Your task to perform on an android device: Go to privacy settings Image 0: 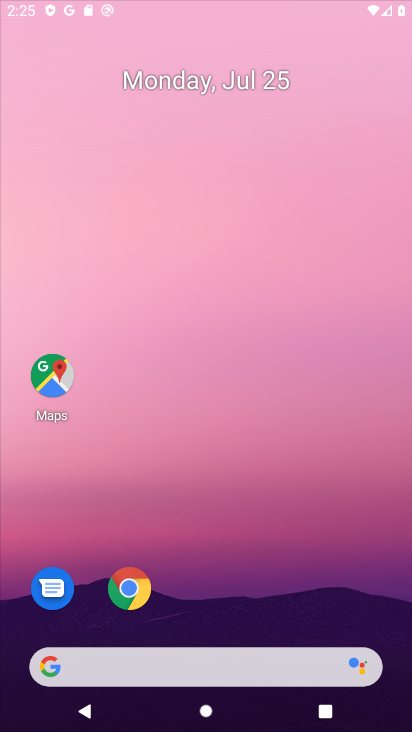
Step 0: press home button
Your task to perform on an android device: Go to privacy settings Image 1: 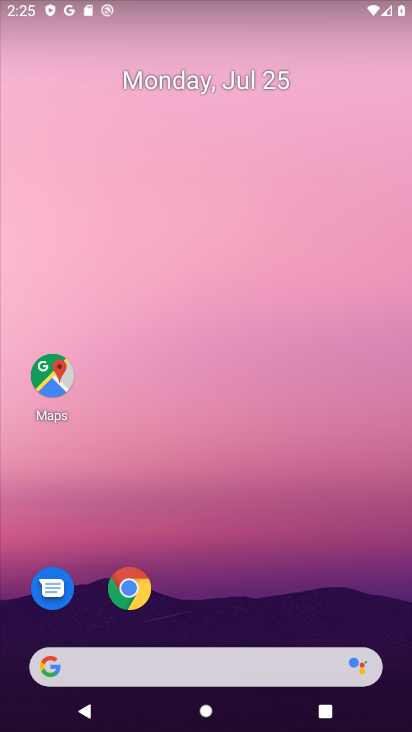
Step 1: drag from (217, 628) to (215, 0)
Your task to perform on an android device: Go to privacy settings Image 2: 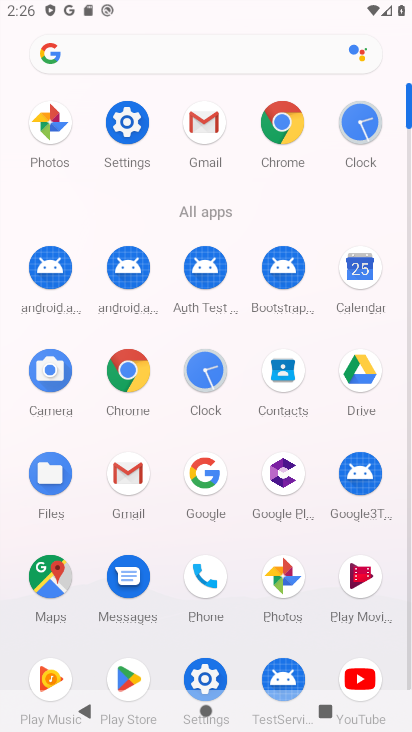
Step 2: click (121, 114)
Your task to perform on an android device: Go to privacy settings Image 3: 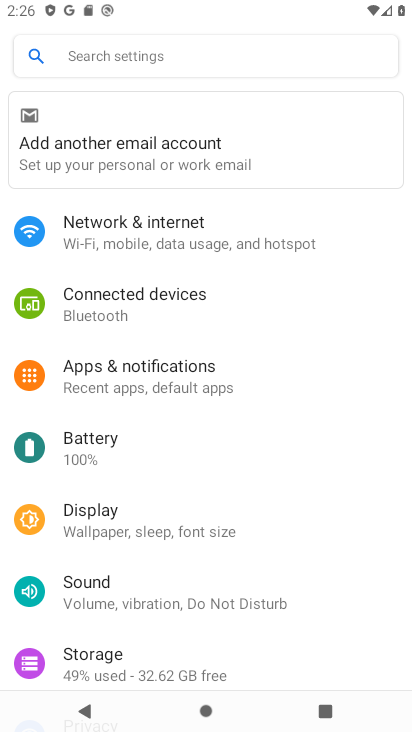
Step 3: drag from (177, 619) to (192, 100)
Your task to perform on an android device: Go to privacy settings Image 4: 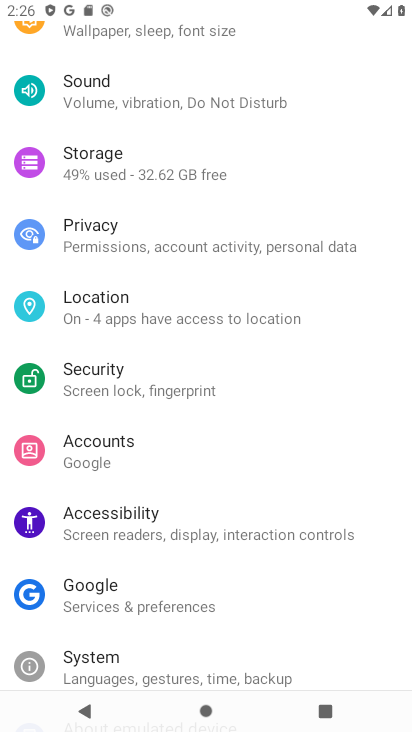
Step 4: click (129, 223)
Your task to perform on an android device: Go to privacy settings Image 5: 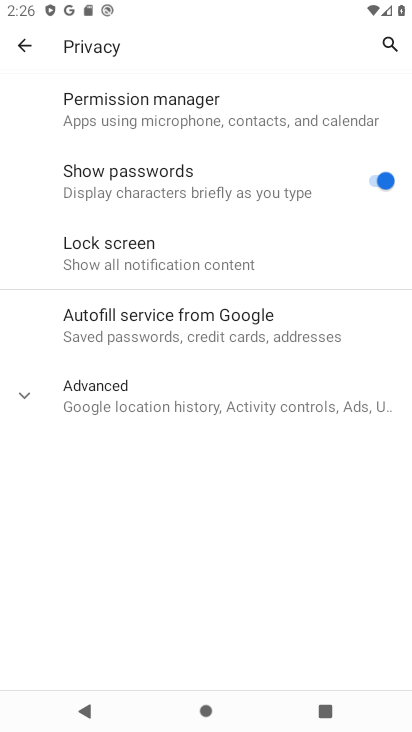
Step 5: click (23, 391)
Your task to perform on an android device: Go to privacy settings Image 6: 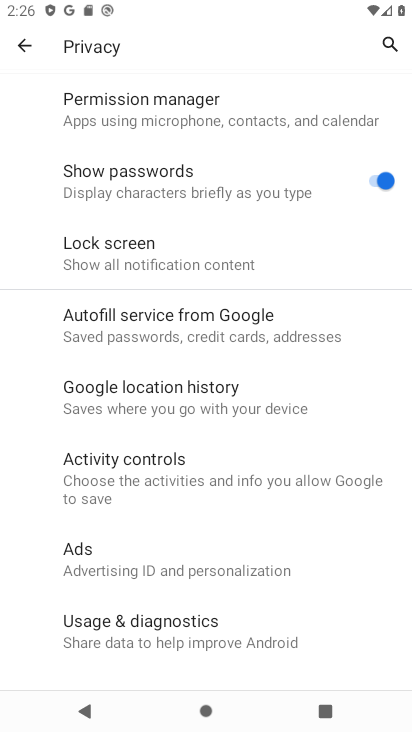
Step 6: task complete